Your task to perform on an android device: open a new tab in the chrome app Image 0: 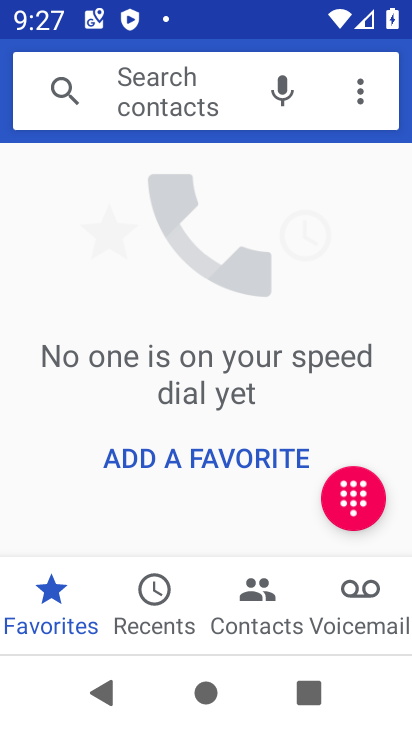
Step 0: press home button
Your task to perform on an android device: open a new tab in the chrome app Image 1: 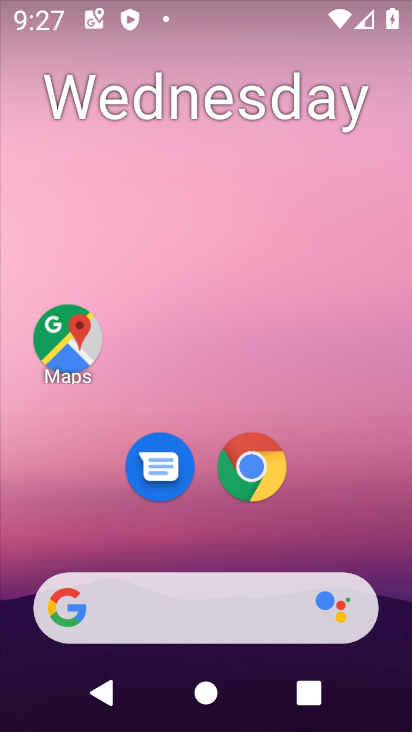
Step 1: click (260, 460)
Your task to perform on an android device: open a new tab in the chrome app Image 2: 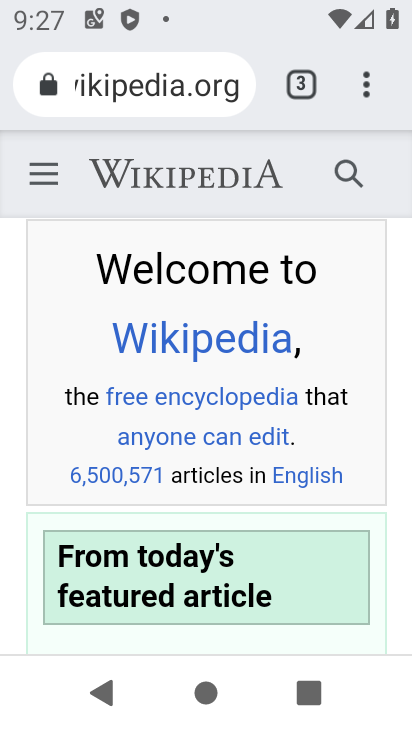
Step 2: click (372, 93)
Your task to perform on an android device: open a new tab in the chrome app Image 3: 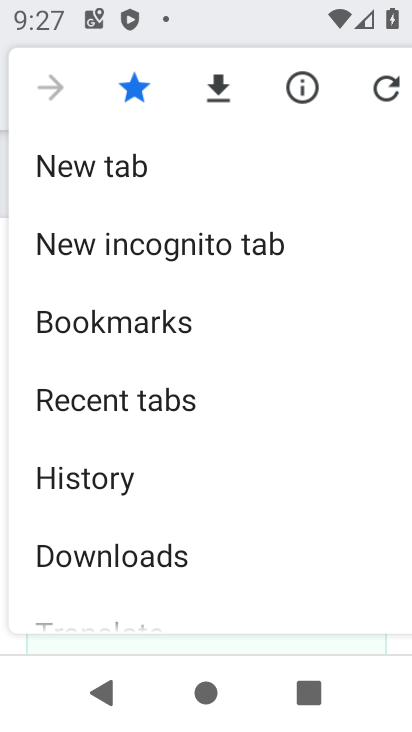
Step 3: click (300, 163)
Your task to perform on an android device: open a new tab in the chrome app Image 4: 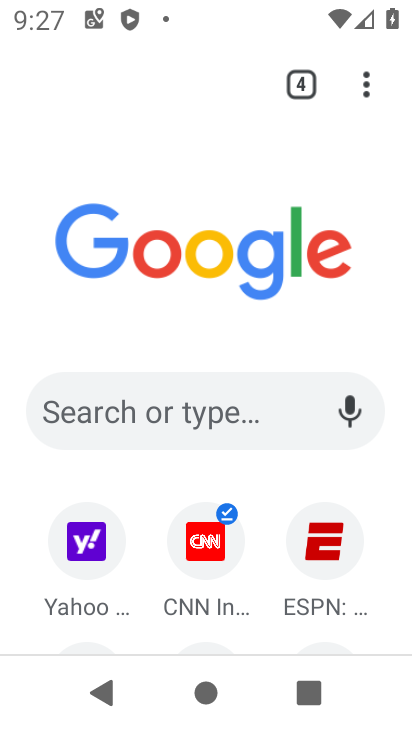
Step 4: task complete